Your task to perform on an android device: What's on my calendar tomorrow? Image 0: 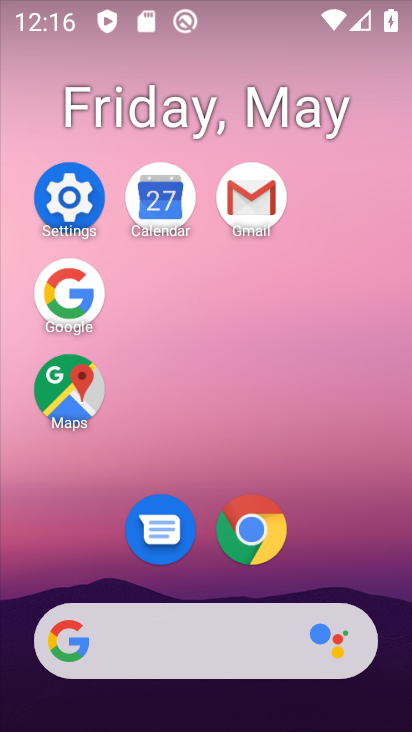
Step 0: click (170, 205)
Your task to perform on an android device: What's on my calendar tomorrow? Image 1: 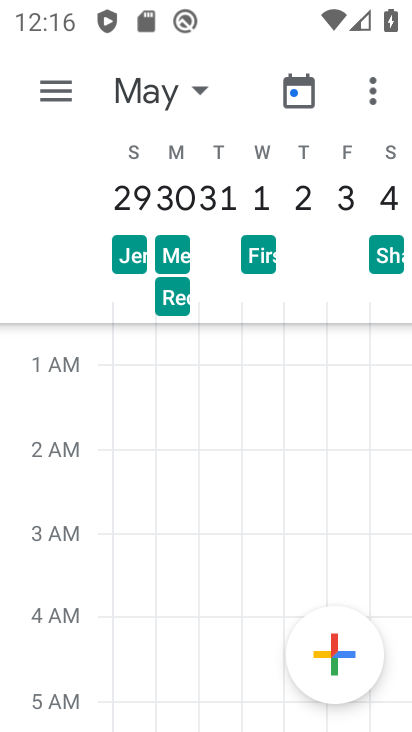
Step 1: click (140, 192)
Your task to perform on an android device: What's on my calendar tomorrow? Image 2: 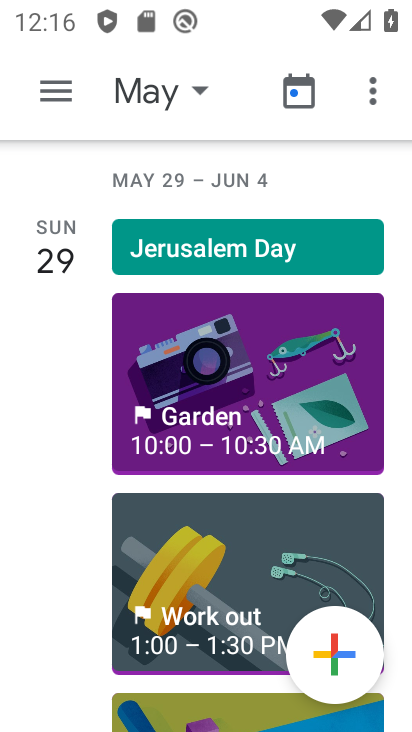
Step 2: task complete